Your task to perform on an android device: Search for sushi restaurants on Maps Image 0: 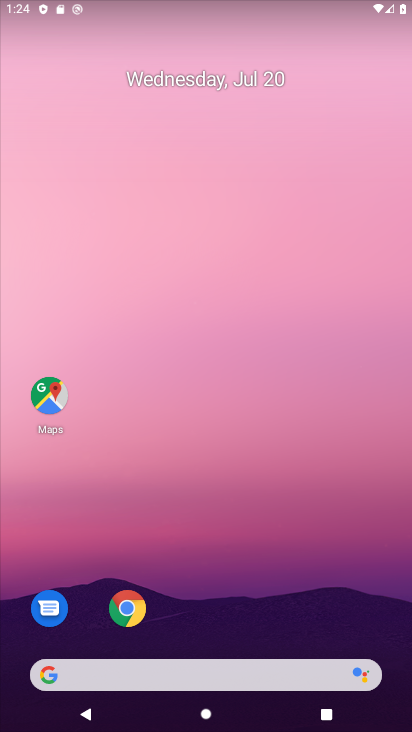
Step 0: click (54, 397)
Your task to perform on an android device: Search for sushi restaurants on Maps Image 1: 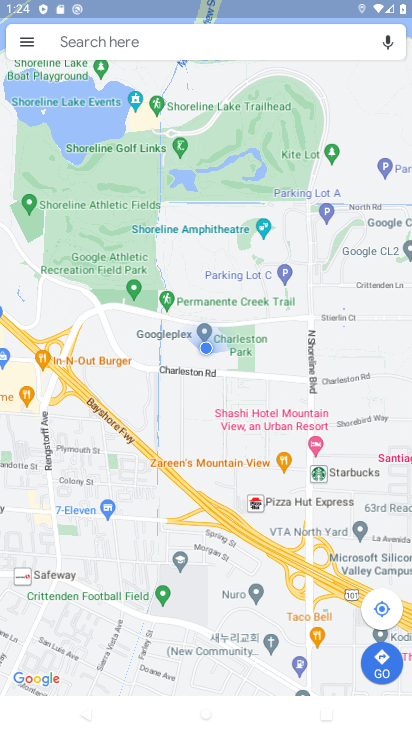
Step 1: click (155, 42)
Your task to perform on an android device: Search for sushi restaurants on Maps Image 2: 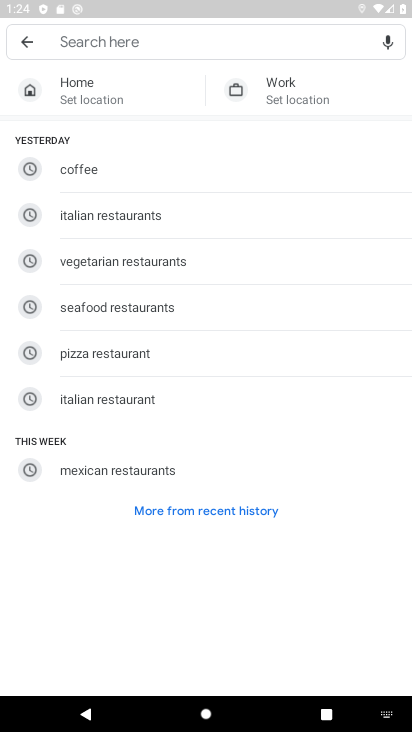
Step 2: type "sushi"
Your task to perform on an android device: Search for sushi restaurants on Maps Image 3: 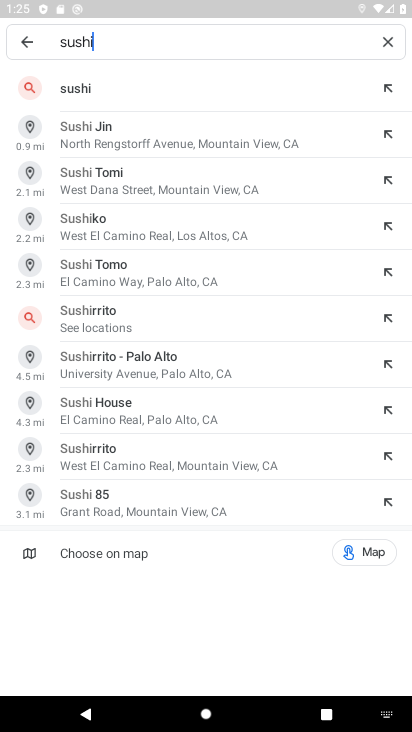
Step 3: click (151, 106)
Your task to perform on an android device: Search for sushi restaurants on Maps Image 4: 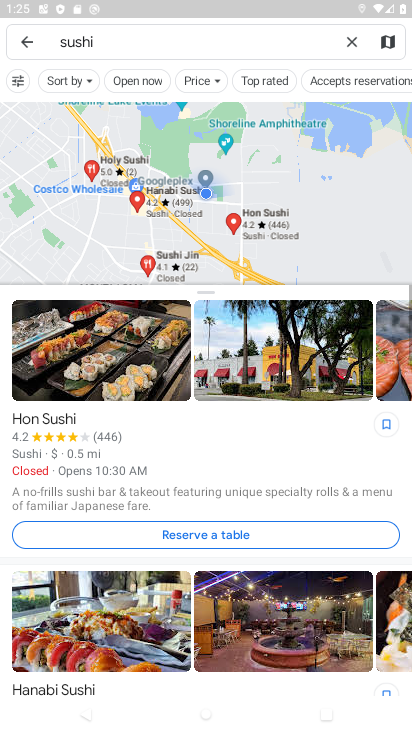
Step 4: task complete